Your task to perform on an android device: Open Google Maps and go to "Timeline" Image 0: 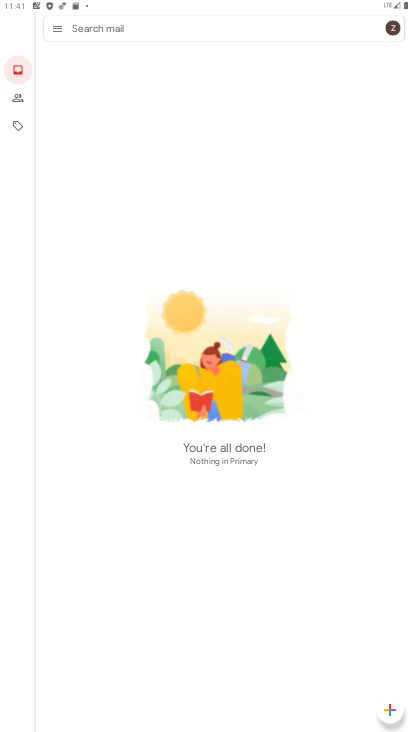
Step 0: press home button
Your task to perform on an android device: Open Google Maps and go to "Timeline" Image 1: 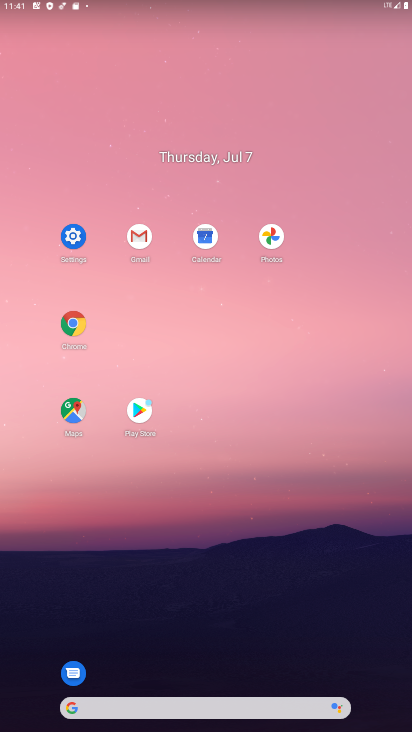
Step 1: click (84, 419)
Your task to perform on an android device: Open Google Maps and go to "Timeline" Image 2: 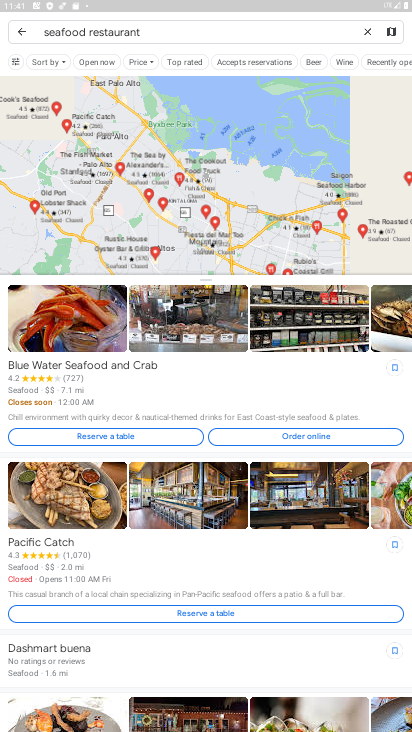
Step 2: click (15, 26)
Your task to perform on an android device: Open Google Maps and go to "Timeline" Image 3: 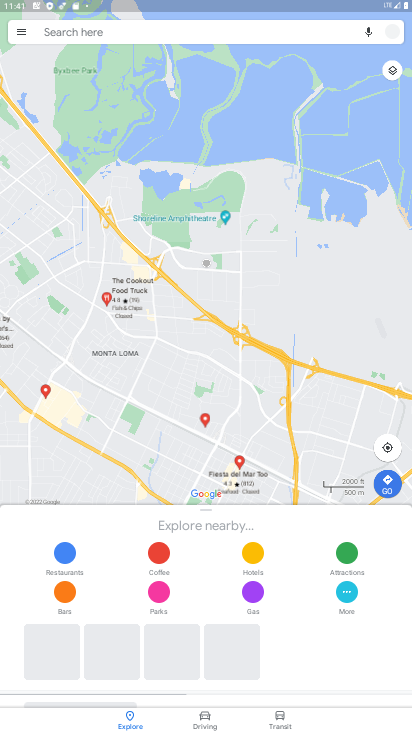
Step 3: click (19, 32)
Your task to perform on an android device: Open Google Maps and go to "Timeline" Image 4: 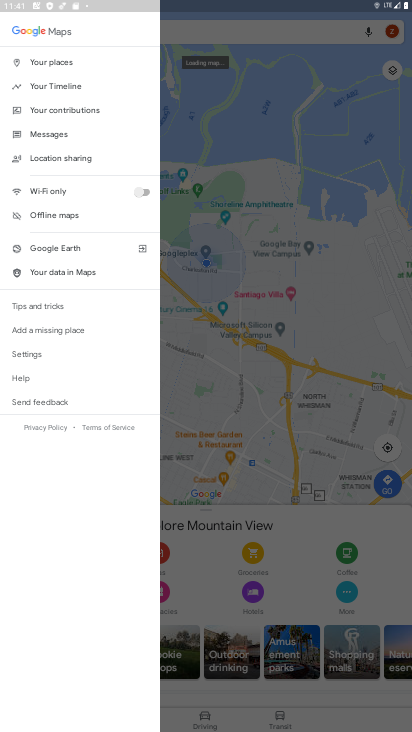
Step 4: click (47, 84)
Your task to perform on an android device: Open Google Maps and go to "Timeline" Image 5: 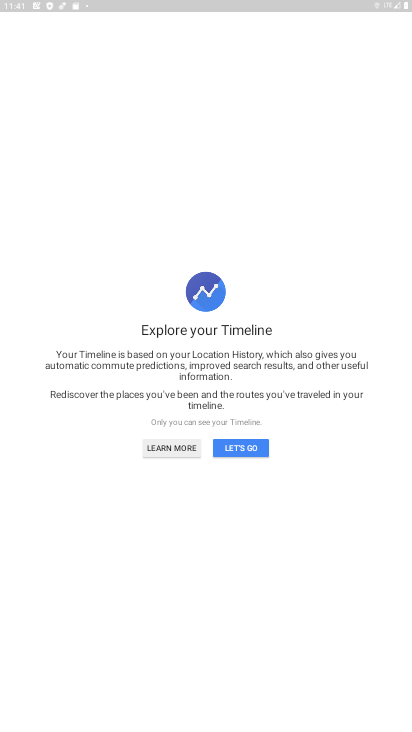
Step 5: click (244, 449)
Your task to perform on an android device: Open Google Maps and go to "Timeline" Image 6: 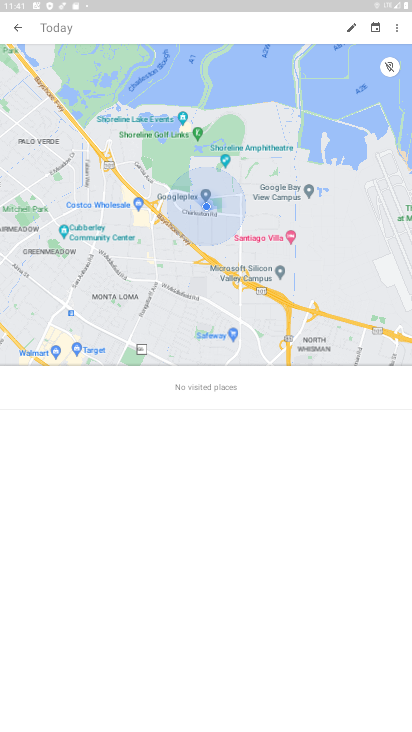
Step 6: task complete